Your task to perform on an android device: open device folders in google photos Image 0: 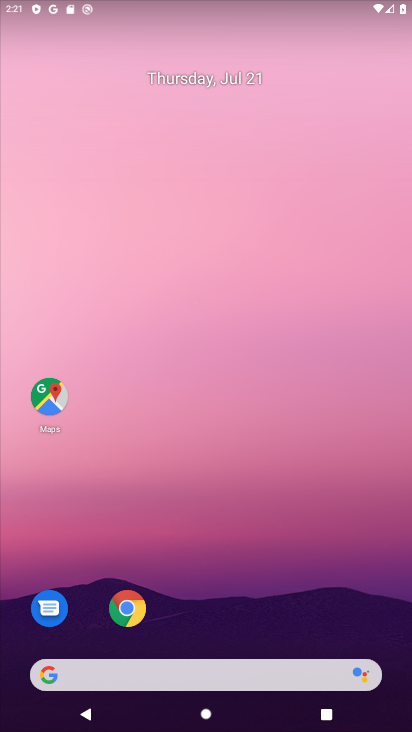
Step 0: drag from (177, 632) to (141, 32)
Your task to perform on an android device: open device folders in google photos Image 1: 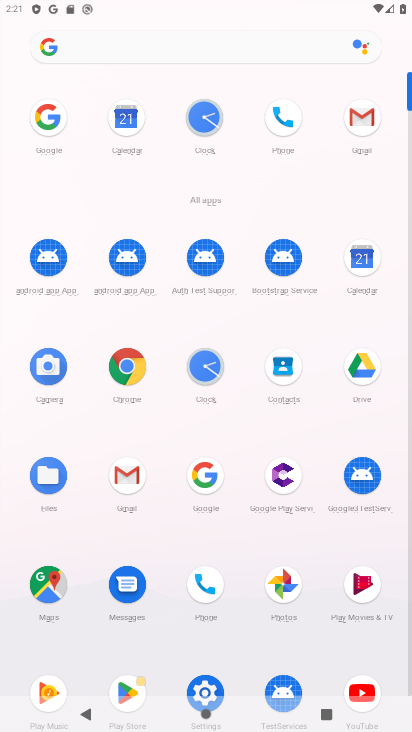
Step 1: click (283, 567)
Your task to perform on an android device: open device folders in google photos Image 2: 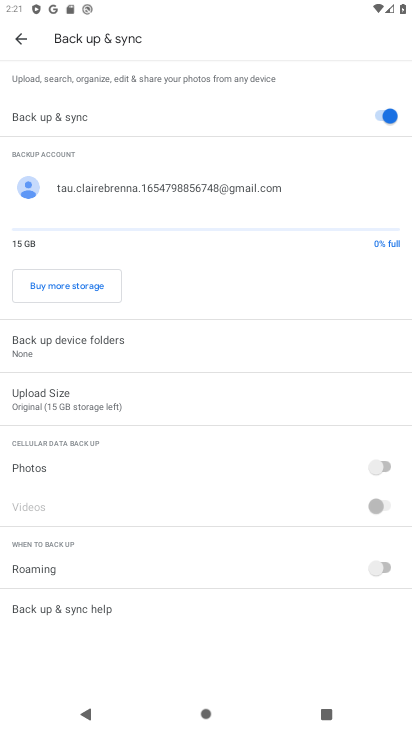
Step 2: click (33, 37)
Your task to perform on an android device: open device folders in google photos Image 3: 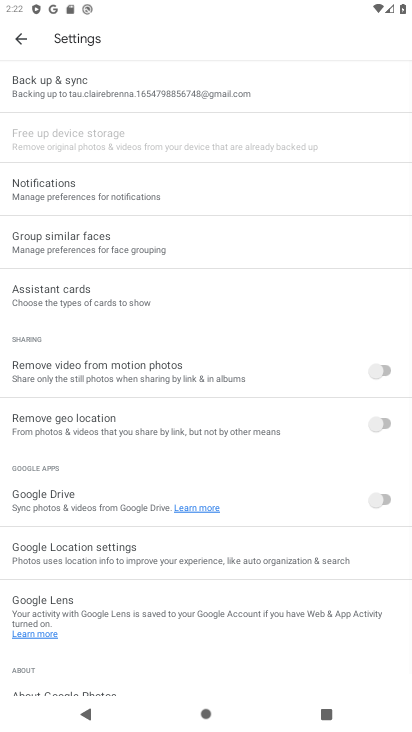
Step 3: click (24, 37)
Your task to perform on an android device: open device folders in google photos Image 4: 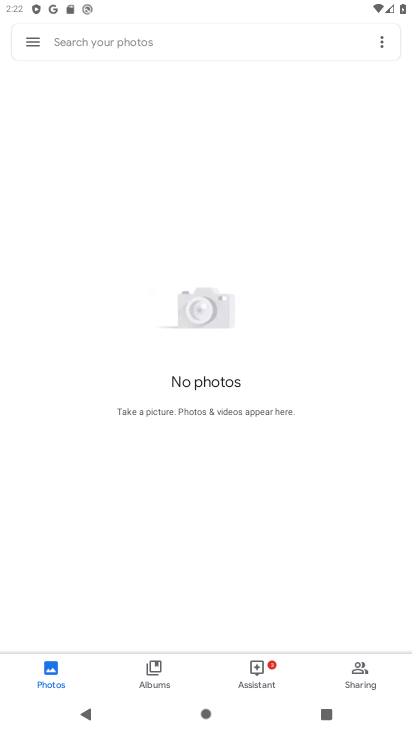
Step 4: click (22, 37)
Your task to perform on an android device: open device folders in google photos Image 5: 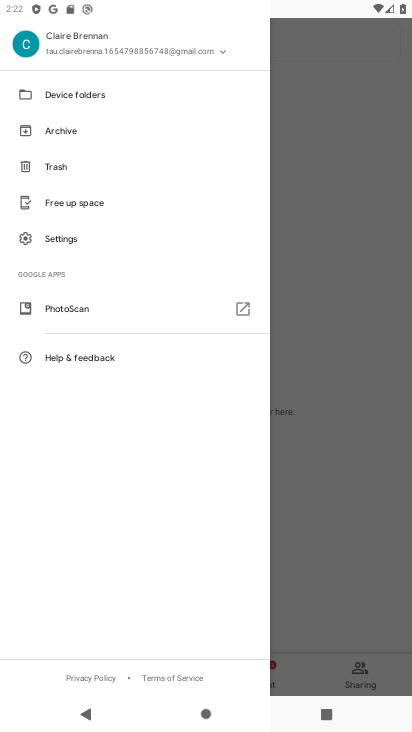
Step 5: click (69, 88)
Your task to perform on an android device: open device folders in google photos Image 6: 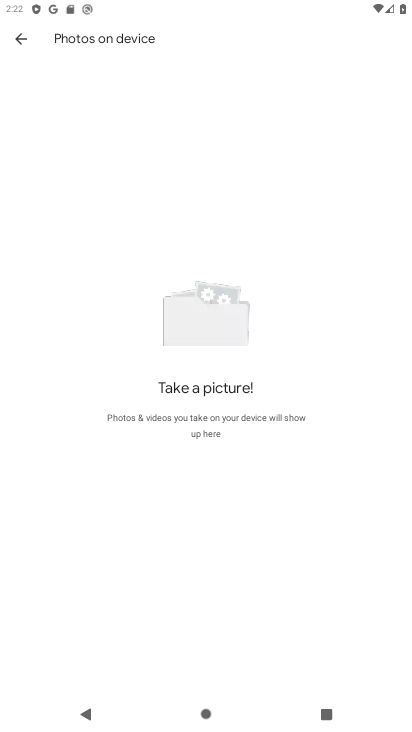
Step 6: task complete